Your task to perform on an android device: turn off translation in the chrome app Image 0: 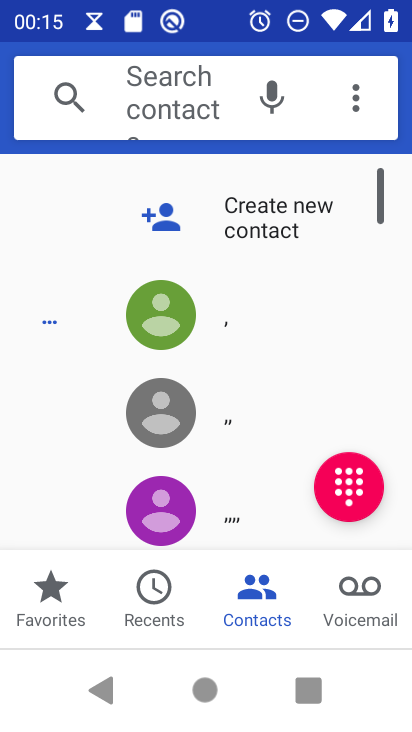
Step 0: press home button
Your task to perform on an android device: turn off translation in the chrome app Image 1: 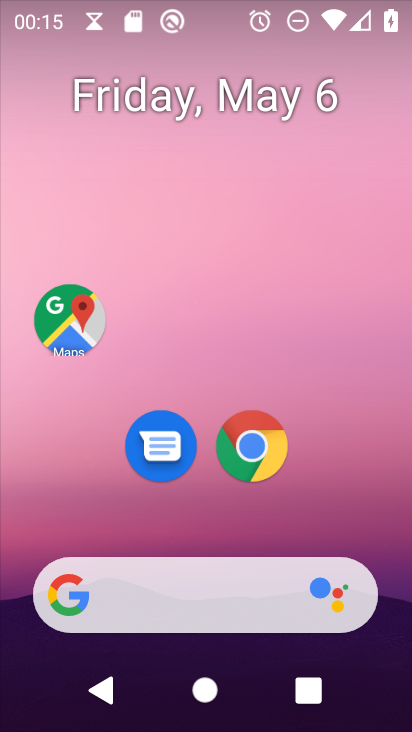
Step 1: drag from (262, 643) to (316, 267)
Your task to perform on an android device: turn off translation in the chrome app Image 2: 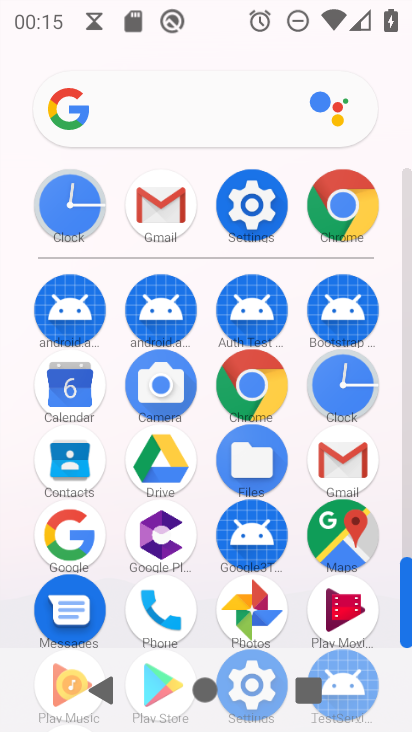
Step 2: click (338, 229)
Your task to perform on an android device: turn off translation in the chrome app Image 3: 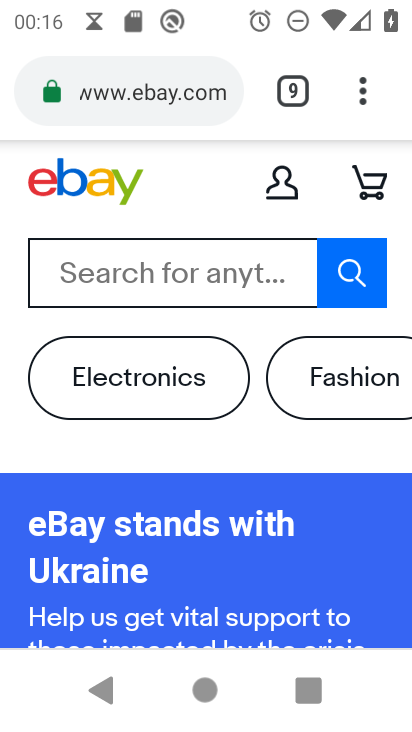
Step 3: click (359, 119)
Your task to perform on an android device: turn off translation in the chrome app Image 4: 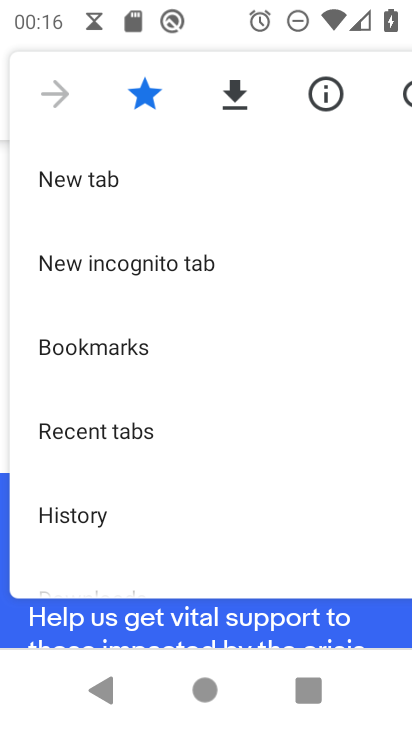
Step 4: drag from (138, 543) to (180, 381)
Your task to perform on an android device: turn off translation in the chrome app Image 5: 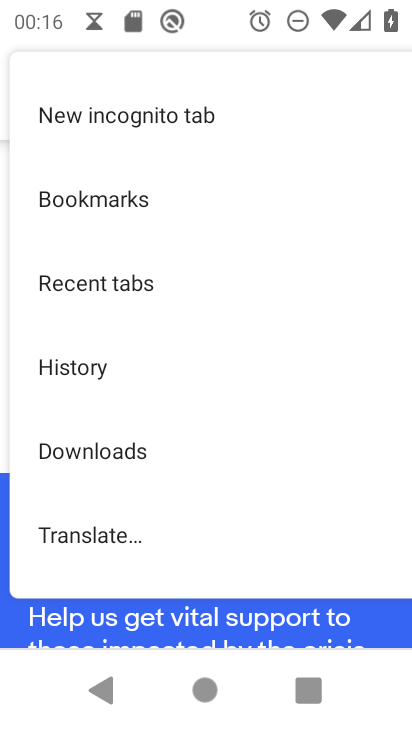
Step 5: drag from (159, 552) to (247, 358)
Your task to perform on an android device: turn off translation in the chrome app Image 6: 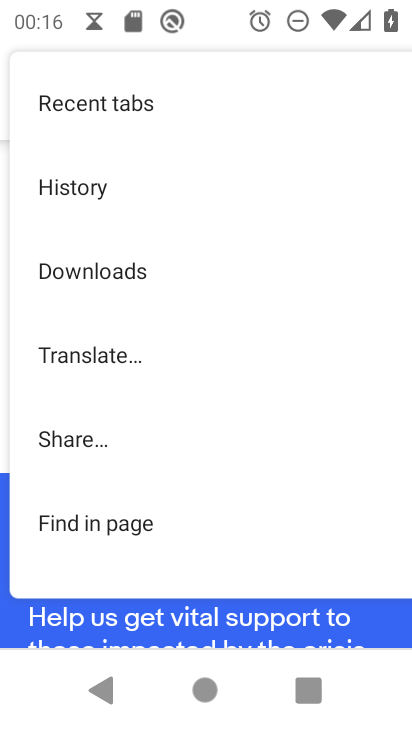
Step 6: drag from (135, 554) to (143, 377)
Your task to perform on an android device: turn off translation in the chrome app Image 7: 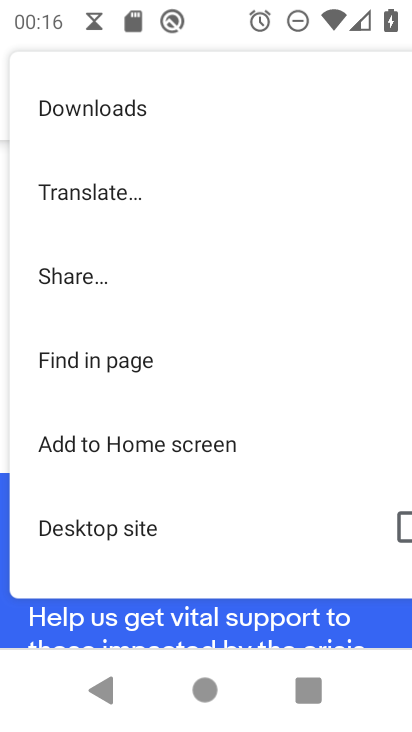
Step 7: drag from (138, 490) to (231, 288)
Your task to perform on an android device: turn off translation in the chrome app Image 8: 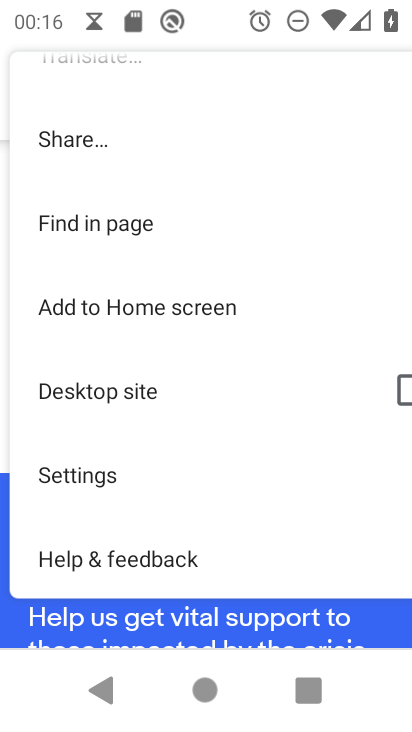
Step 8: click (127, 483)
Your task to perform on an android device: turn off translation in the chrome app Image 9: 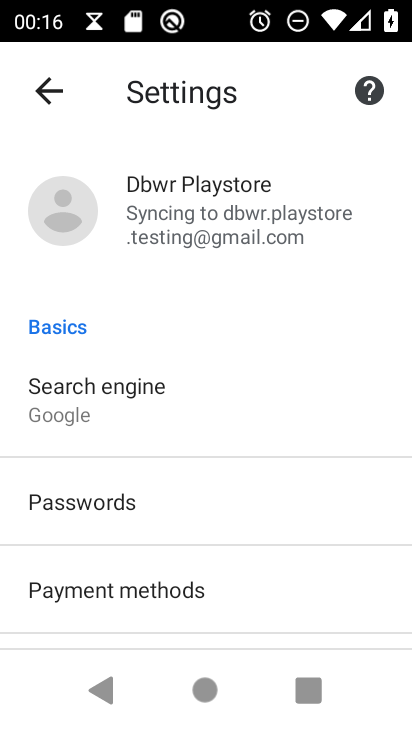
Step 9: drag from (202, 551) to (285, 259)
Your task to perform on an android device: turn off translation in the chrome app Image 10: 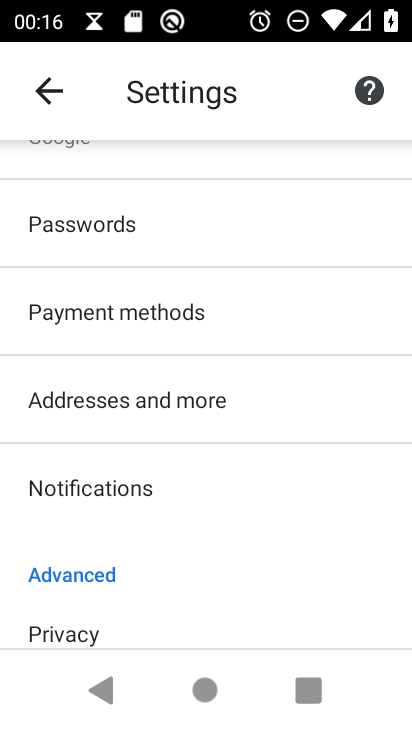
Step 10: drag from (201, 542) to (267, 251)
Your task to perform on an android device: turn off translation in the chrome app Image 11: 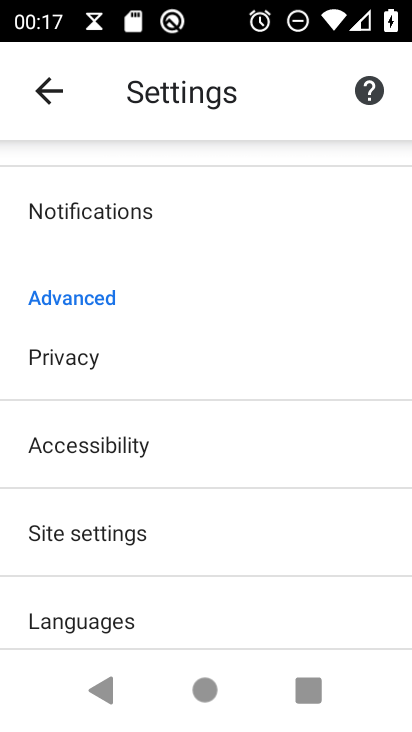
Step 11: click (77, 617)
Your task to perform on an android device: turn off translation in the chrome app Image 12: 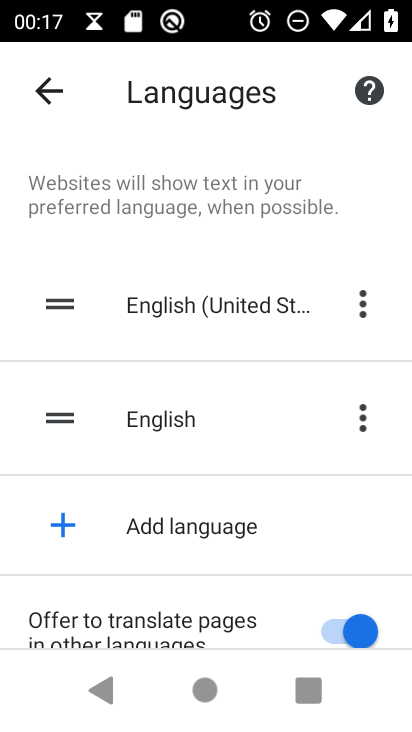
Step 12: click (322, 622)
Your task to perform on an android device: turn off translation in the chrome app Image 13: 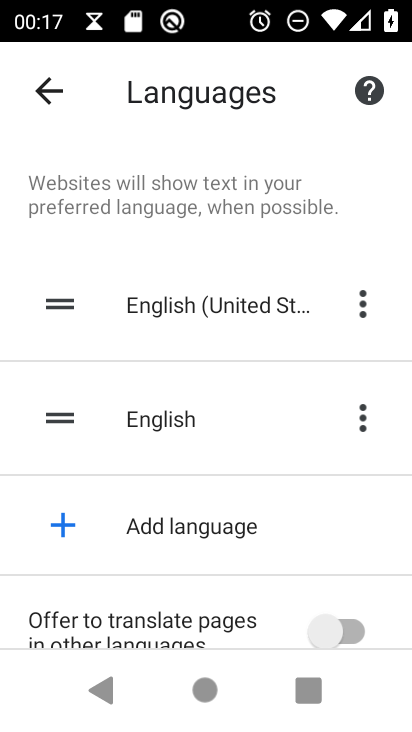
Step 13: task complete